Your task to perform on an android device: change alarm snooze length Image 0: 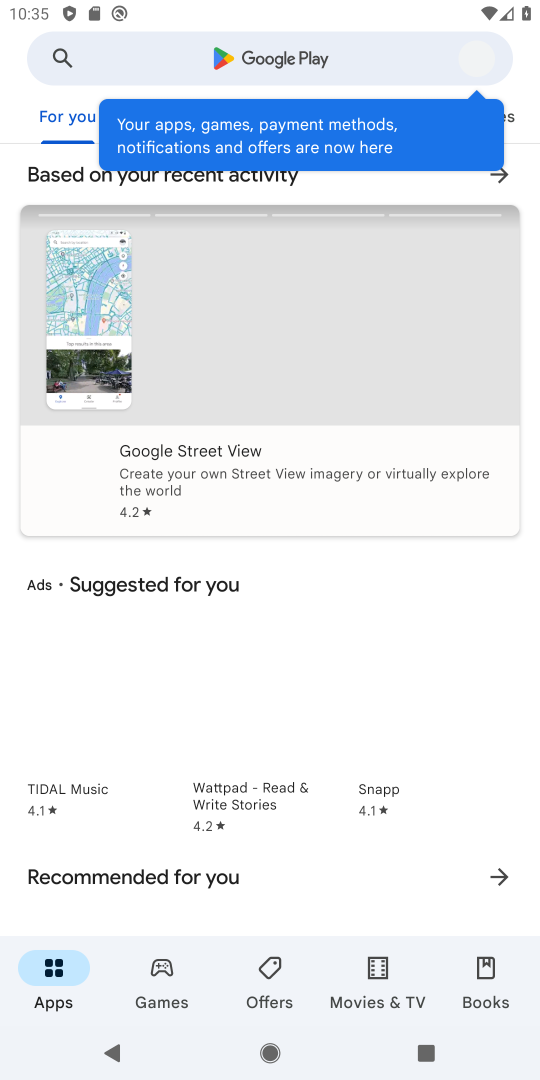
Step 0: press home button
Your task to perform on an android device: change alarm snooze length Image 1: 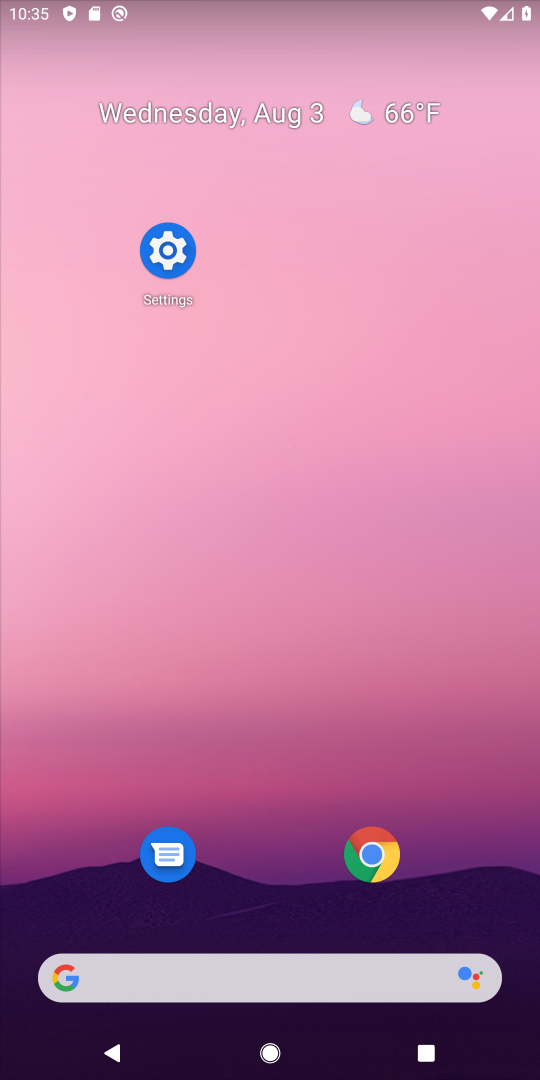
Step 1: drag from (406, 854) to (400, 374)
Your task to perform on an android device: change alarm snooze length Image 2: 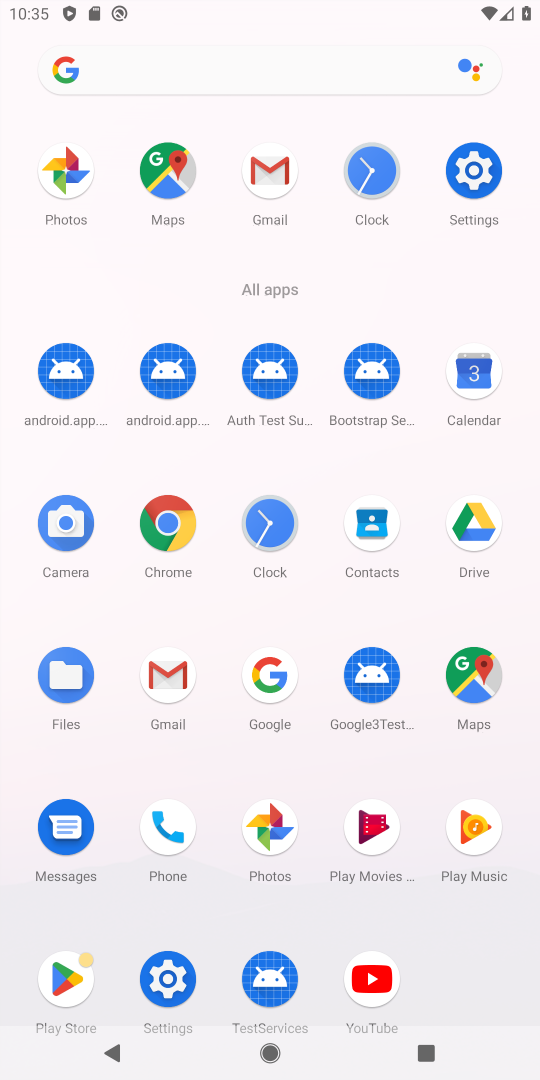
Step 2: click (267, 515)
Your task to perform on an android device: change alarm snooze length Image 3: 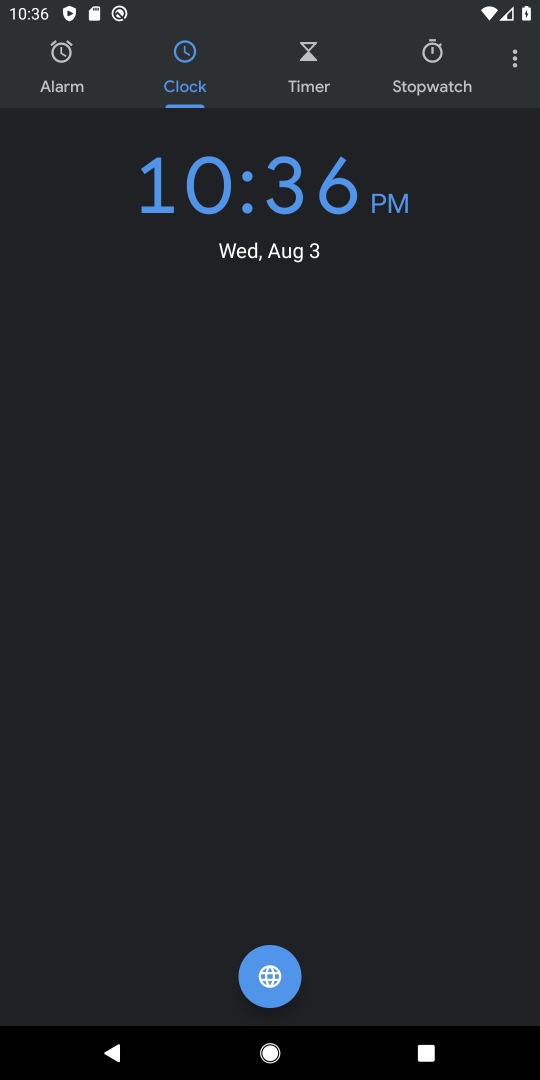
Step 3: click (522, 57)
Your task to perform on an android device: change alarm snooze length Image 4: 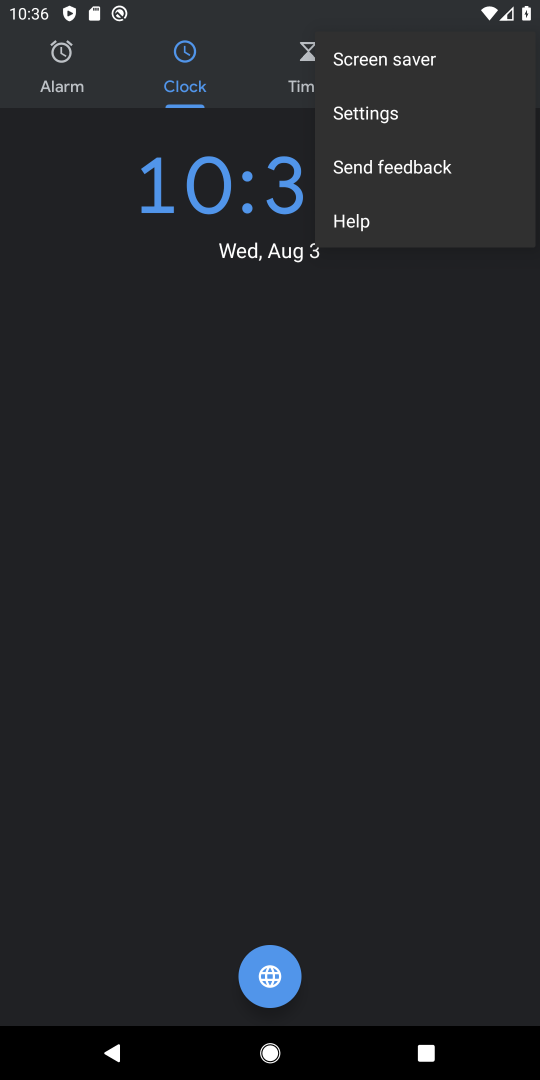
Step 4: click (432, 121)
Your task to perform on an android device: change alarm snooze length Image 5: 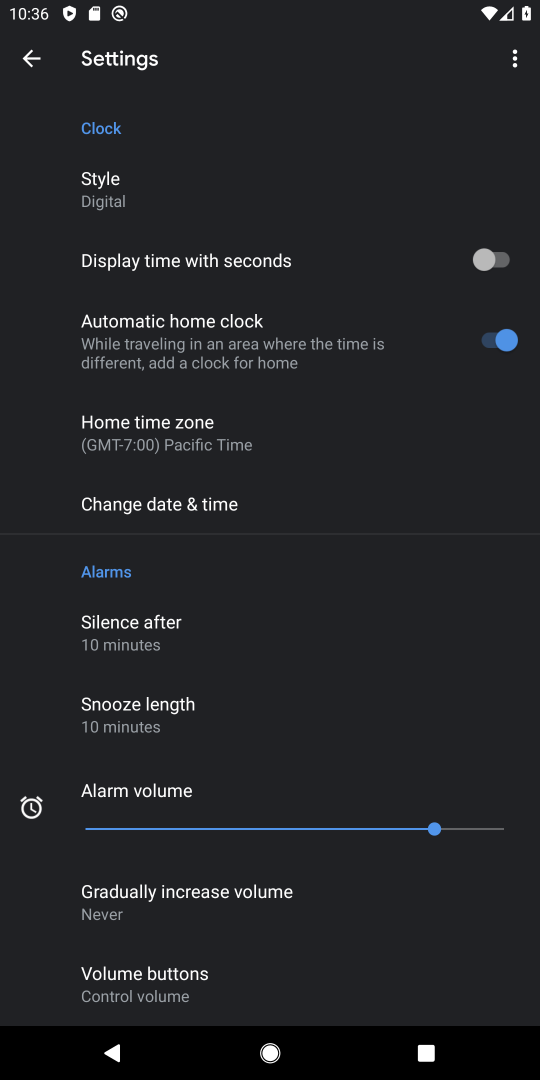
Step 5: click (215, 718)
Your task to perform on an android device: change alarm snooze length Image 6: 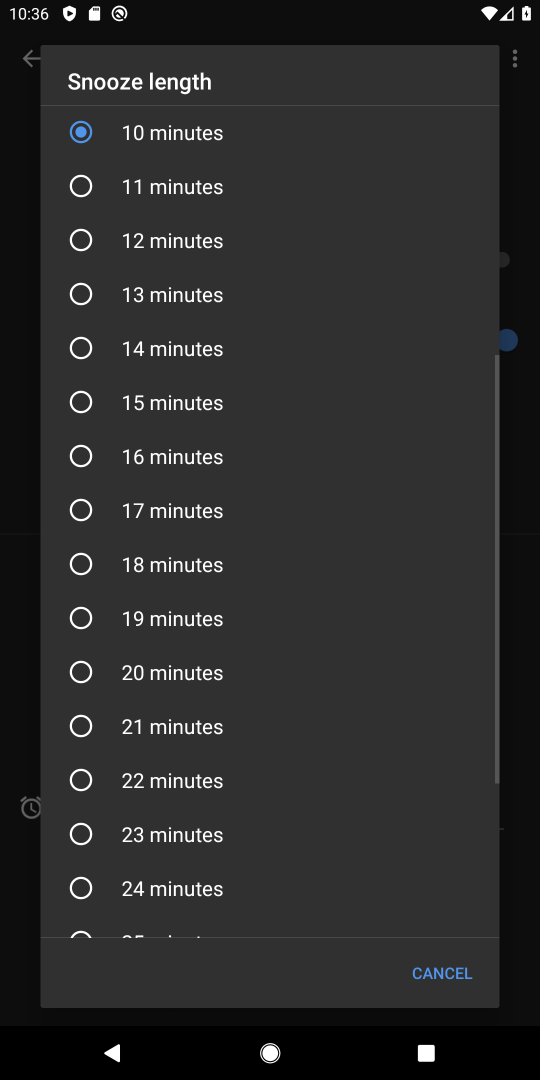
Step 6: click (187, 187)
Your task to perform on an android device: change alarm snooze length Image 7: 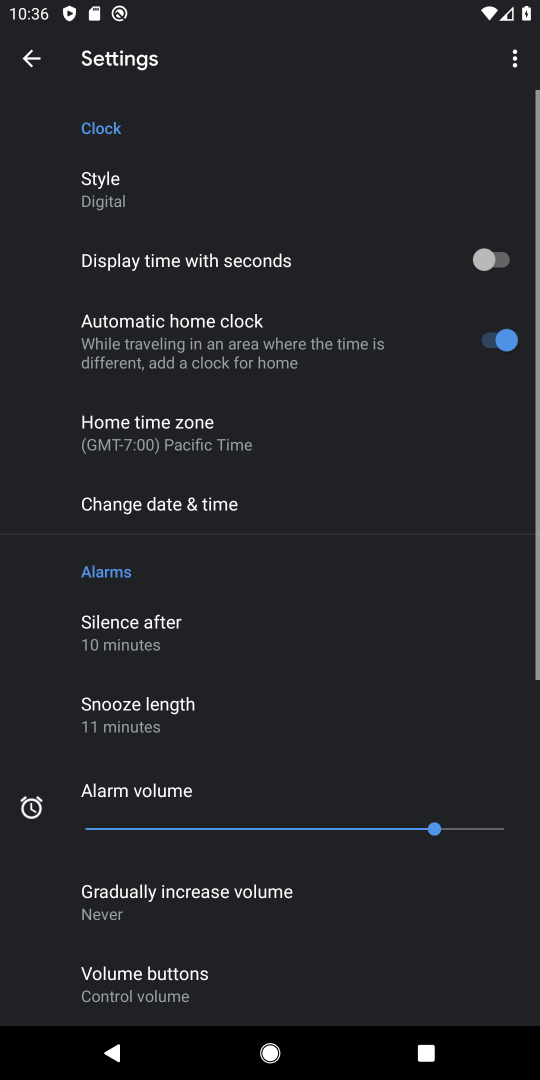
Step 7: task complete